Your task to perform on an android device: What is the news today? Image 0: 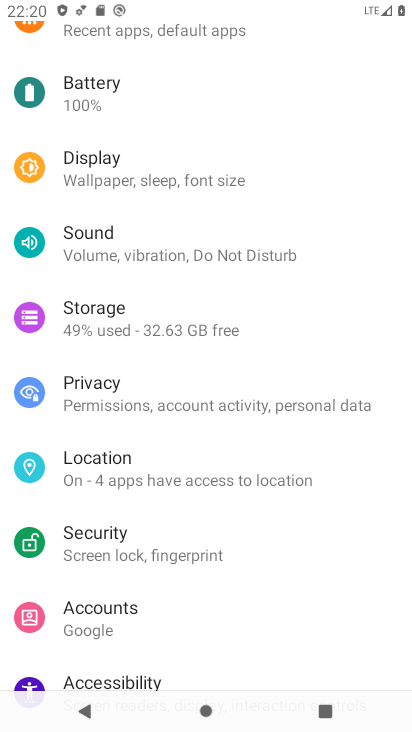
Step 0: press home button
Your task to perform on an android device: What is the news today? Image 1: 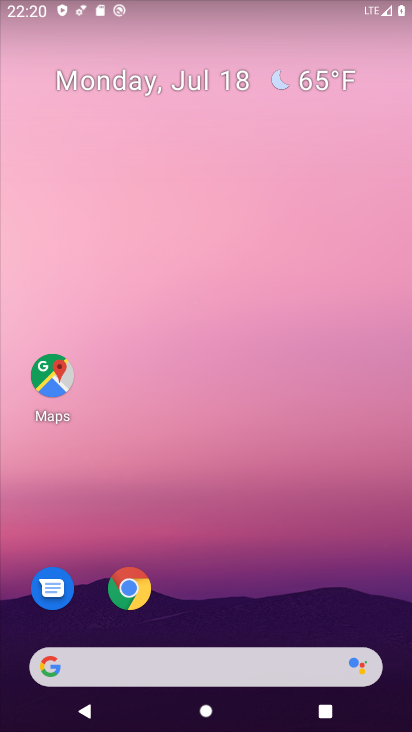
Step 1: click (76, 667)
Your task to perform on an android device: What is the news today? Image 2: 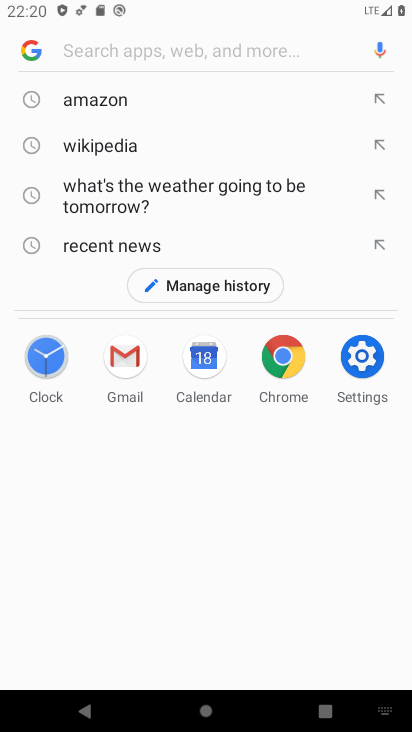
Step 2: type "news today"
Your task to perform on an android device: What is the news today? Image 3: 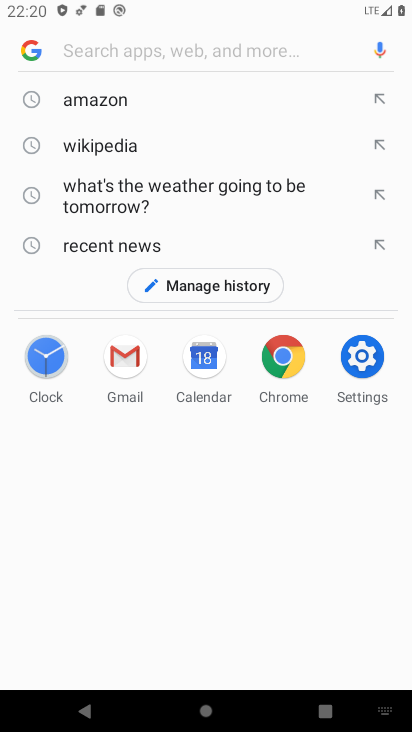
Step 3: click (81, 55)
Your task to perform on an android device: What is the news today? Image 4: 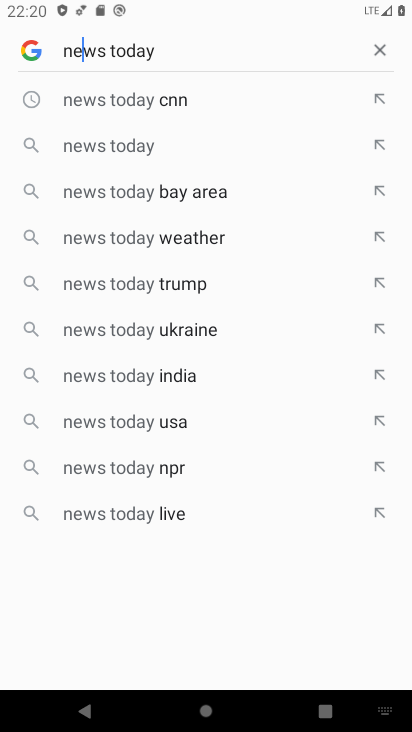
Step 4: press enter
Your task to perform on an android device: What is the news today? Image 5: 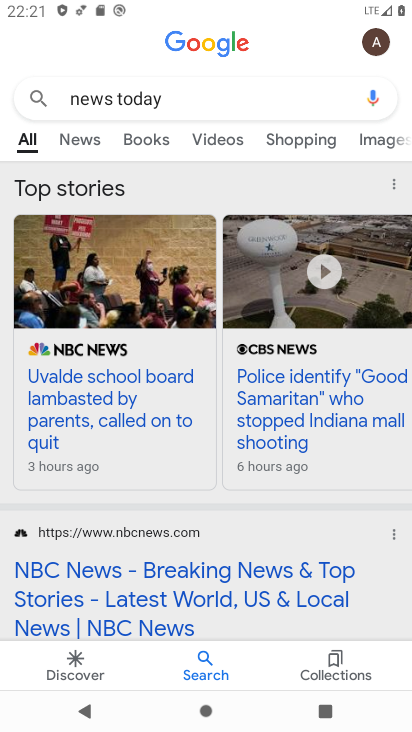
Step 5: task complete